Your task to perform on an android device: Search for vegetarian restaurants on Maps Image 0: 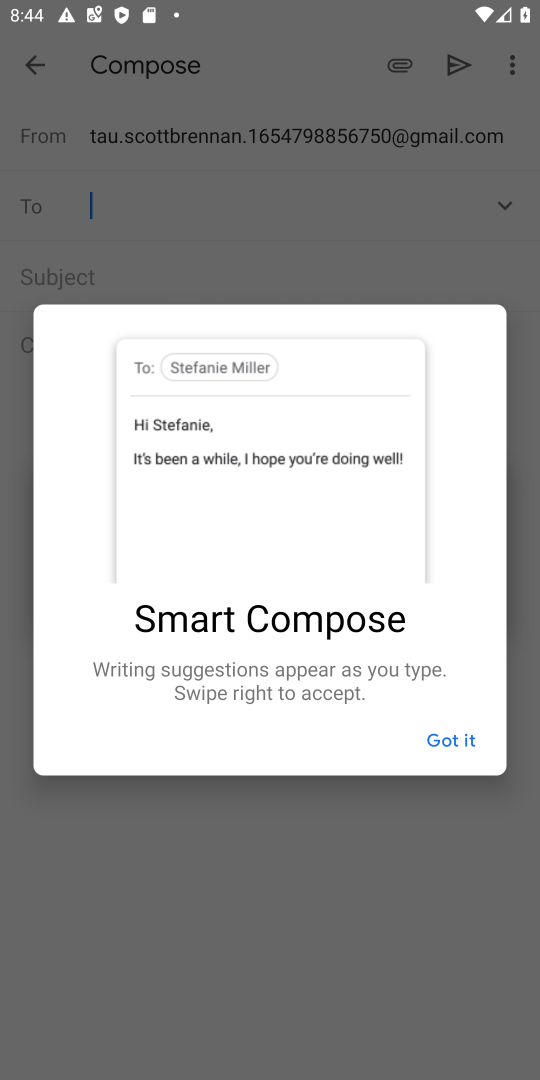
Step 0: press home button
Your task to perform on an android device: Search for vegetarian restaurants on Maps Image 1: 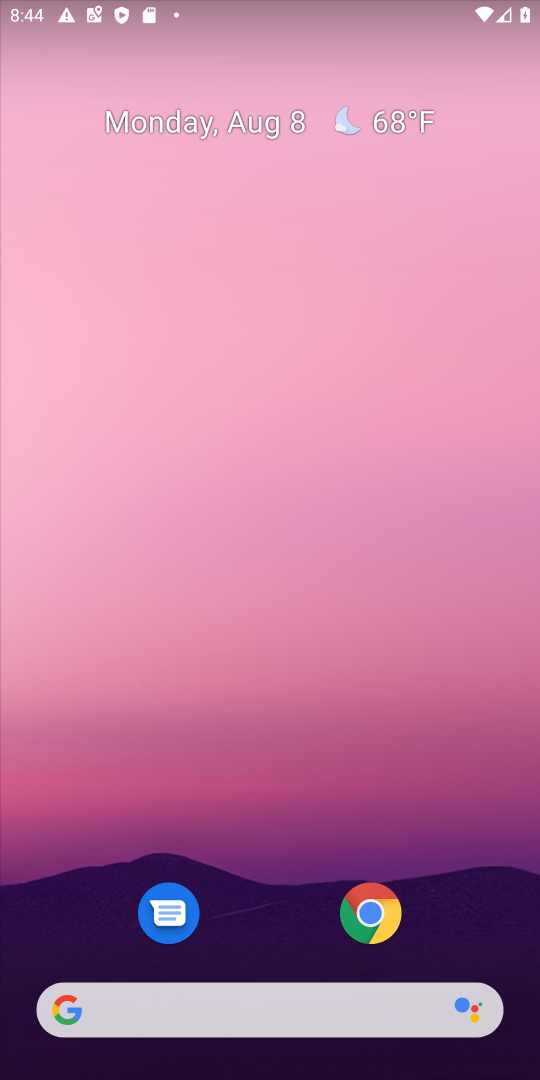
Step 1: drag from (252, 882) to (323, 102)
Your task to perform on an android device: Search for vegetarian restaurants on Maps Image 2: 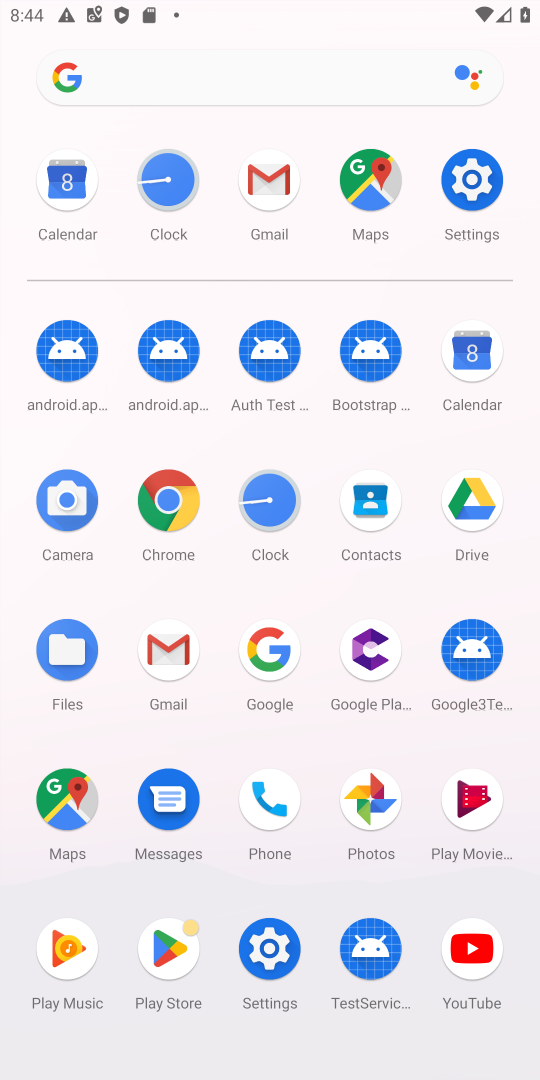
Step 2: click (370, 178)
Your task to perform on an android device: Search for vegetarian restaurants on Maps Image 3: 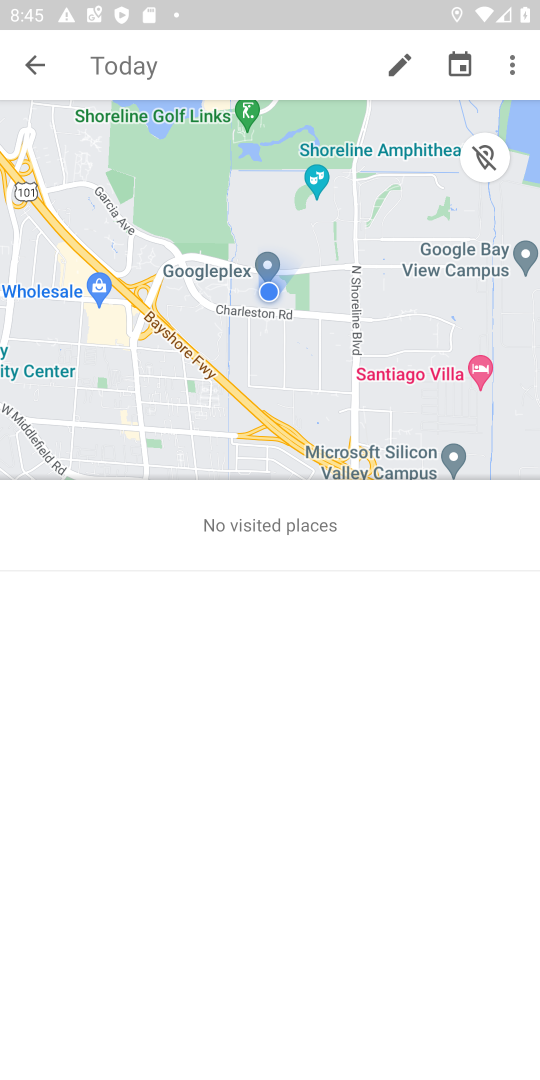
Step 3: press back button
Your task to perform on an android device: Search for vegetarian restaurants on Maps Image 4: 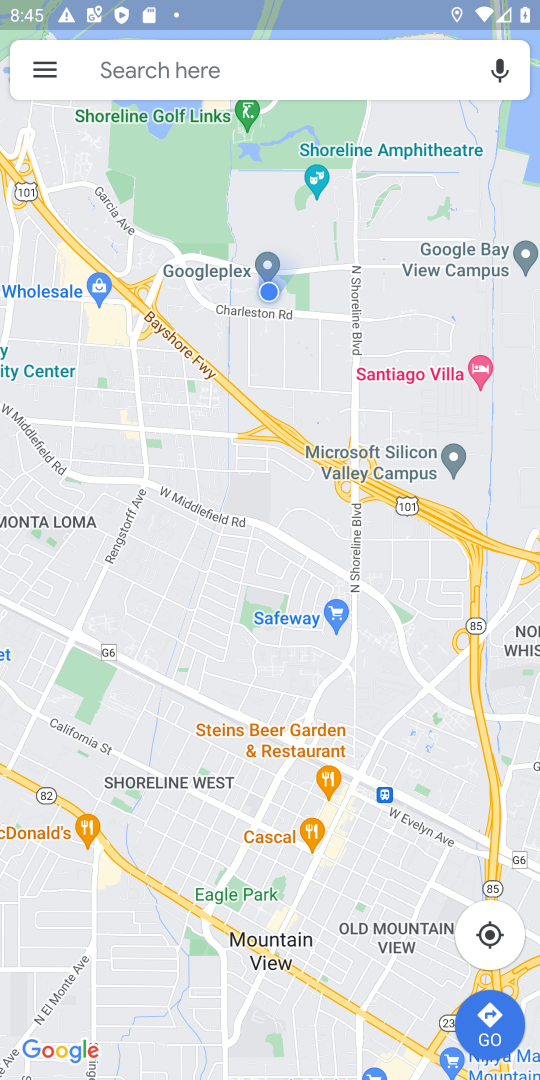
Step 4: click (222, 69)
Your task to perform on an android device: Search for vegetarian restaurants on Maps Image 5: 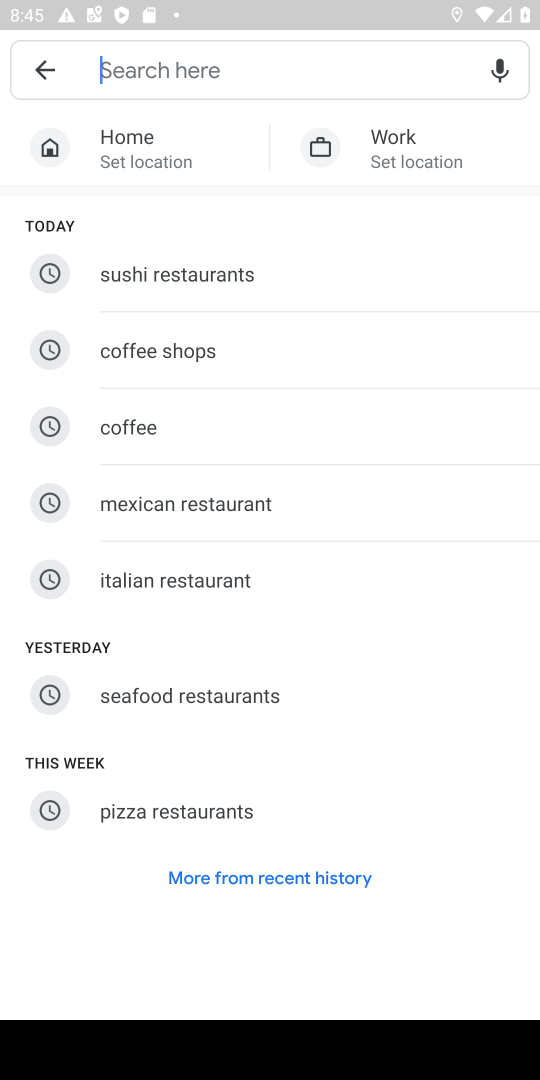
Step 5: type "vegetarian restaurants"
Your task to perform on an android device: Search for vegetarian restaurants on Maps Image 6: 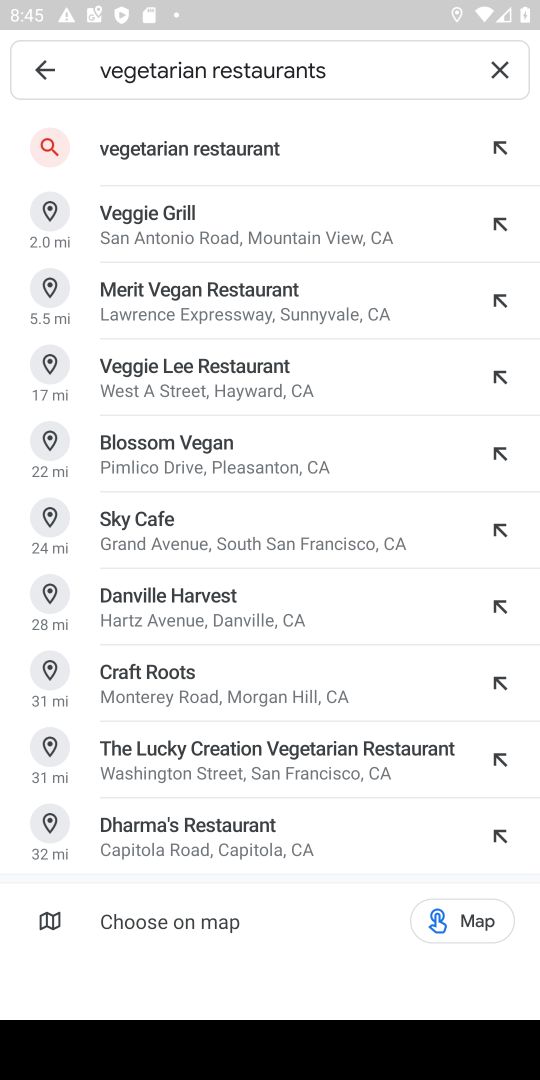
Step 6: click (257, 141)
Your task to perform on an android device: Search for vegetarian restaurants on Maps Image 7: 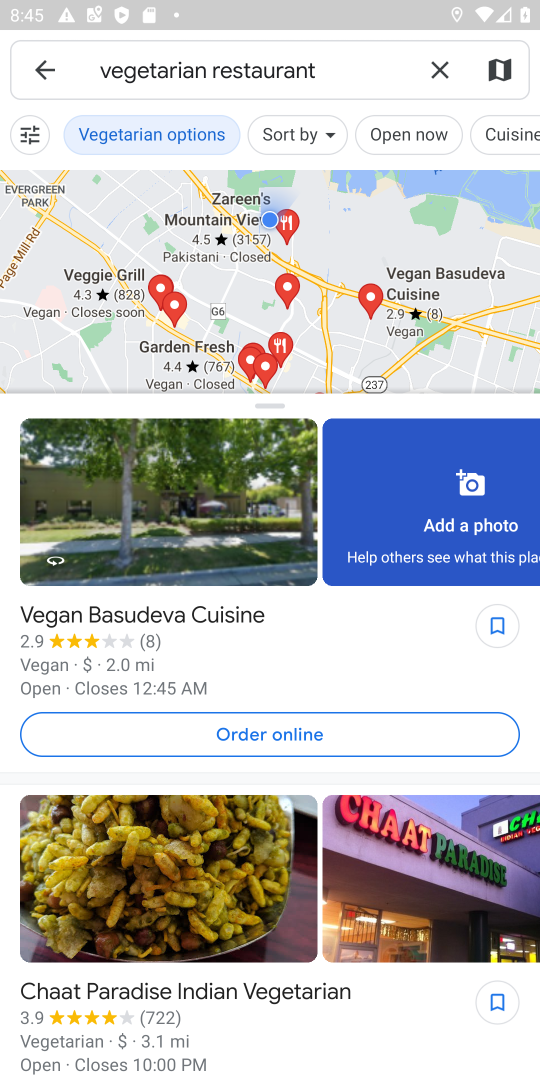
Step 7: task complete